Your task to perform on an android device: Open the Play Movies app and select the watchlist tab. Image 0: 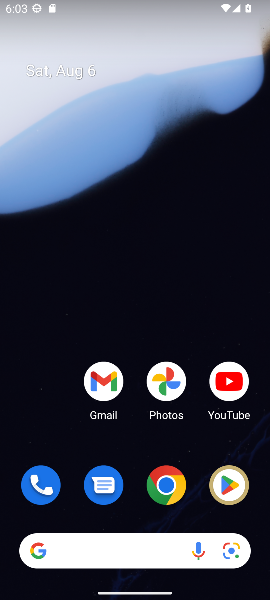
Step 0: drag from (37, 430) to (106, 101)
Your task to perform on an android device: Open the Play Movies app and select the watchlist tab. Image 1: 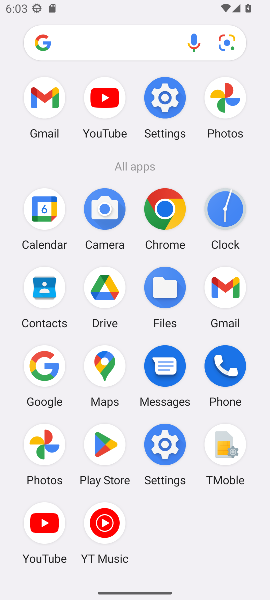
Step 1: task complete